Your task to perform on an android device: make emails show in primary in the gmail app Image 0: 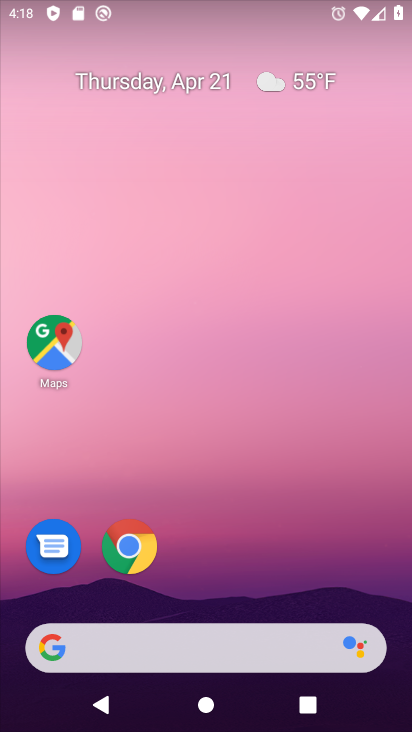
Step 0: drag from (298, 591) to (284, 179)
Your task to perform on an android device: make emails show in primary in the gmail app Image 1: 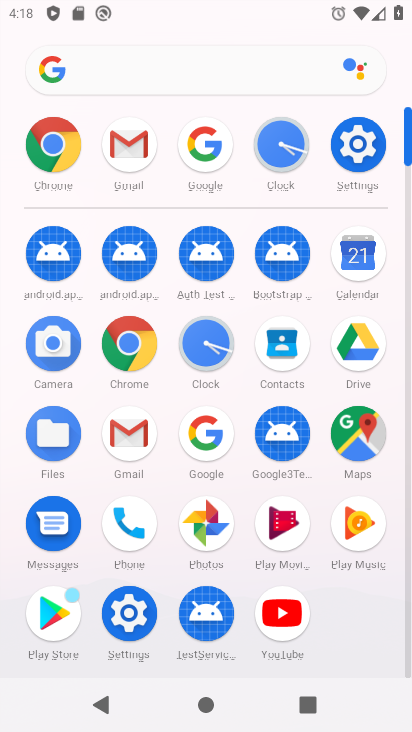
Step 1: click (134, 440)
Your task to perform on an android device: make emails show in primary in the gmail app Image 2: 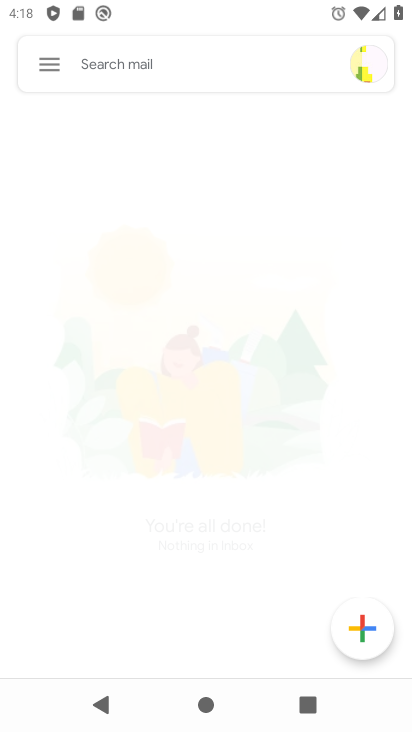
Step 2: click (52, 47)
Your task to perform on an android device: make emails show in primary in the gmail app Image 3: 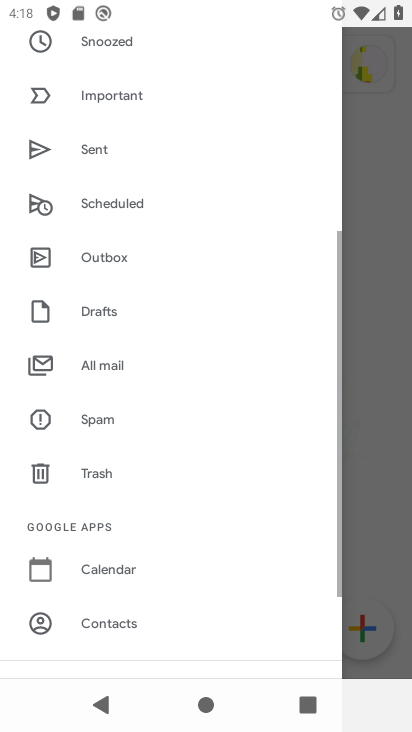
Step 3: drag from (135, 539) to (262, 195)
Your task to perform on an android device: make emails show in primary in the gmail app Image 4: 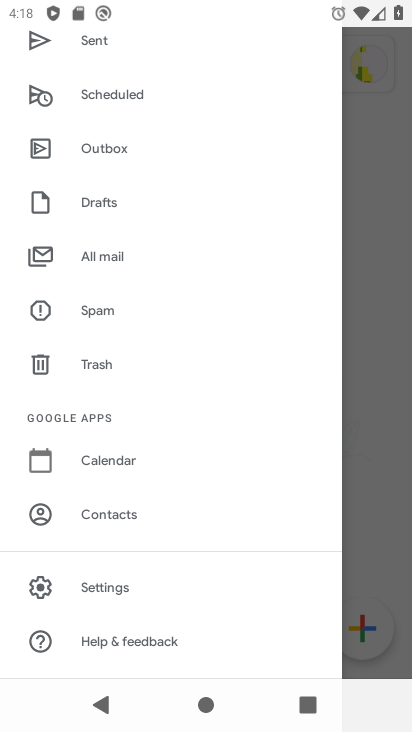
Step 4: click (100, 588)
Your task to perform on an android device: make emails show in primary in the gmail app Image 5: 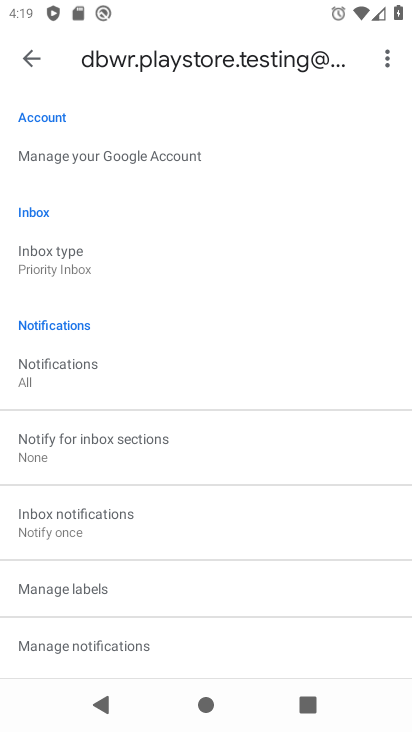
Step 5: click (80, 250)
Your task to perform on an android device: make emails show in primary in the gmail app Image 6: 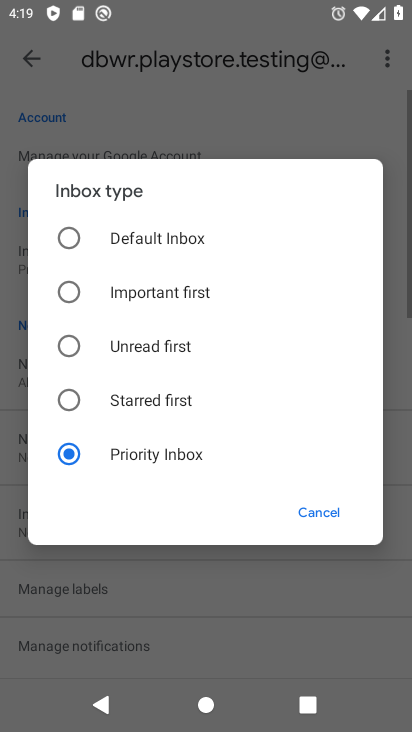
Step 6: click (96, 226)
Your task to perform on an android device: make emails show in primary in the gmail app Image 7: 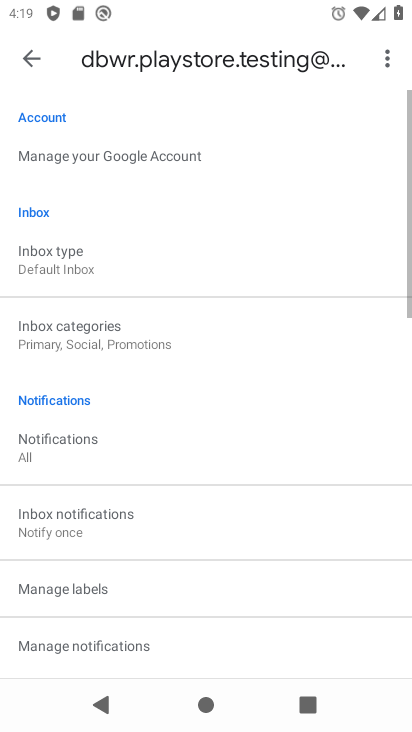
Step 7: click (74, 321)
Your task to perform on an android device: make emails show in primary in the gmail app Image 8: 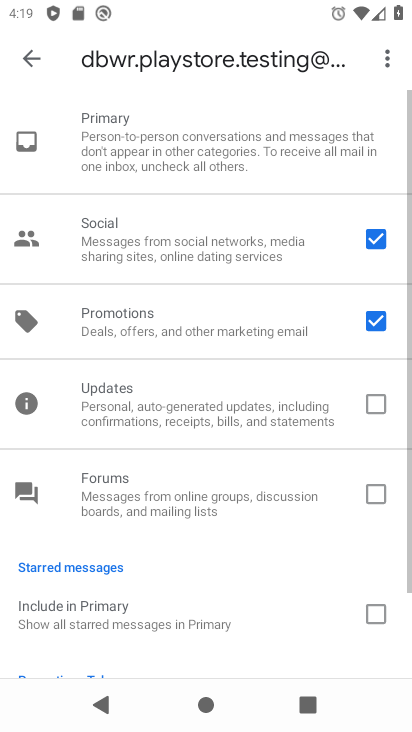
Step 8: task complete